Your task to perform on an android device: Go to Google maps Image 0: 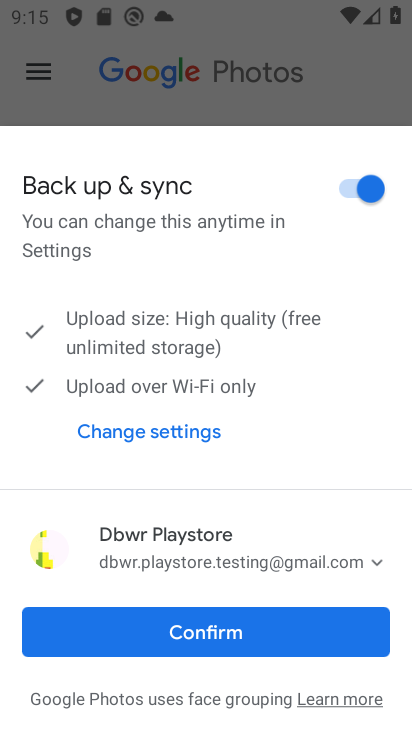
Step 0: press home button
Your task to perform on an android device: Go to Google maps Image 1: 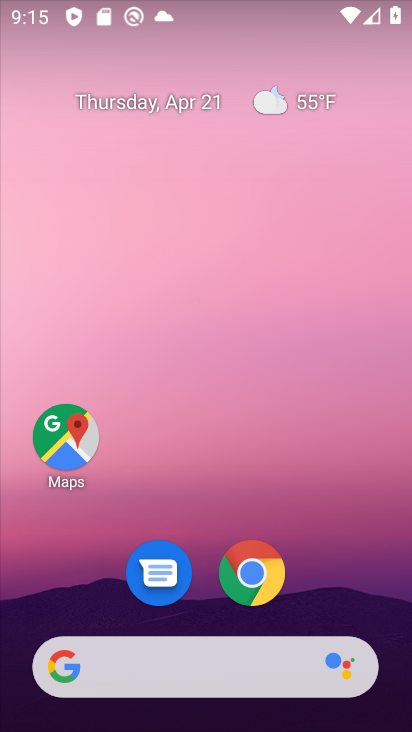
Step 1: click (68, 435)
Your task to perform on an android device: Go to Google maps Image 2: 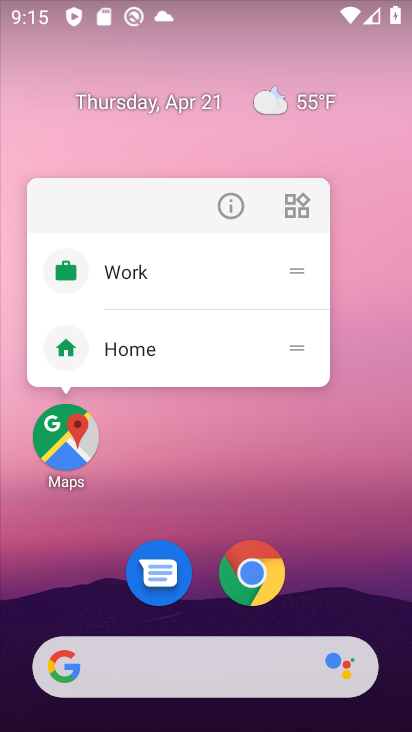
Step 2: click (57, 440)
Your task to perform on an android device: Go to Google maps Image 3: 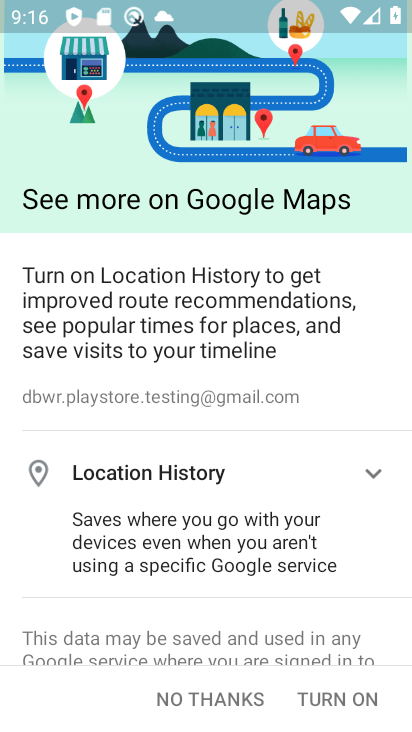
Step 3: task complete